Your task to perform on an android device: turn off notifications settings in the gmail app Image 0: 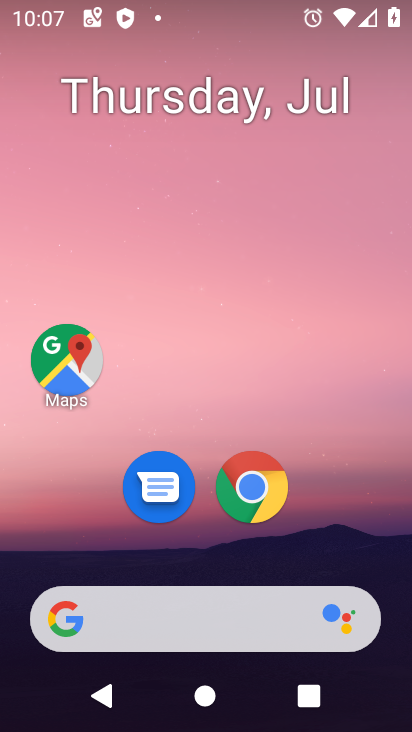
Step 0: drag from (302, 10) to (357, 18)
Your task to perform on an android device: turn off notifications settings in the gmail app Image 1: 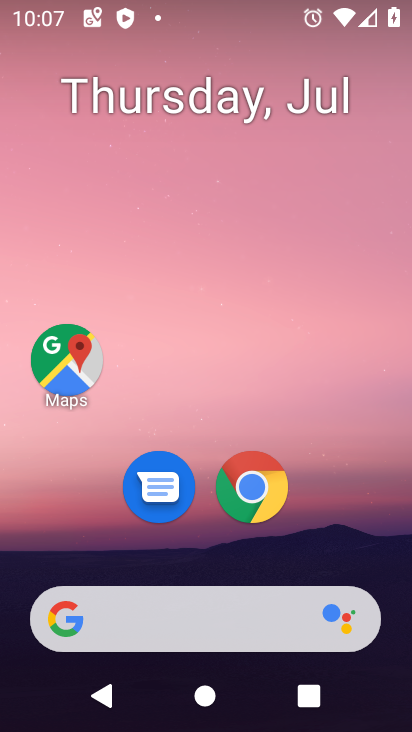
Step 1: drag from (212, 632) to (240, 156)
Your task to perform on an android device: turn off notifications settings in the gmail app Image 2: 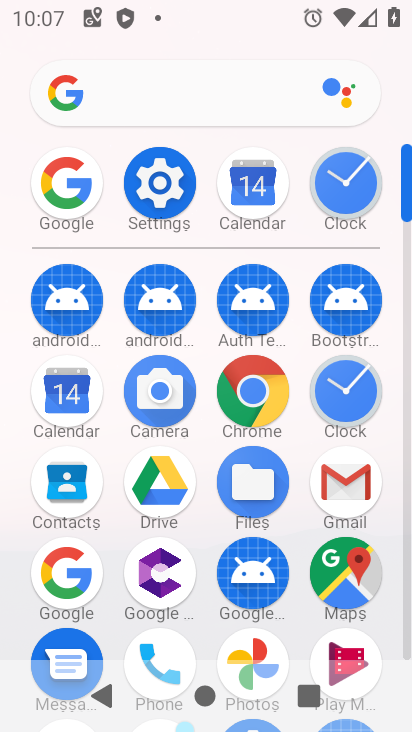
Step 2: click (351, 492)
Your task to perform on an android device: turn off notifications settings in the gmail app Image 3: 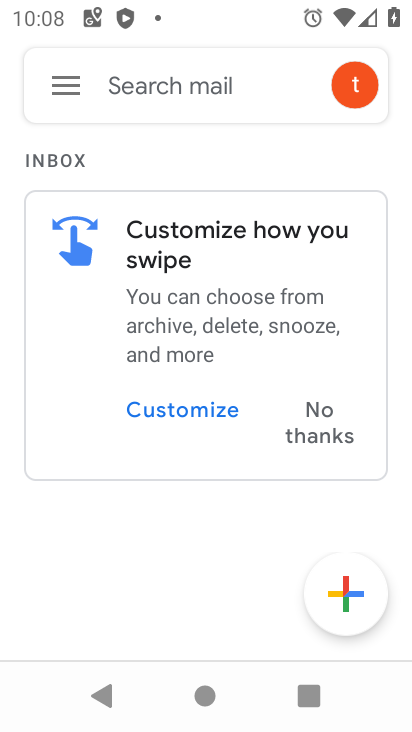
Step 3: click (48, 80)
Your task to perform on an android device: turn off notifications settings in the gmail app Image 4: 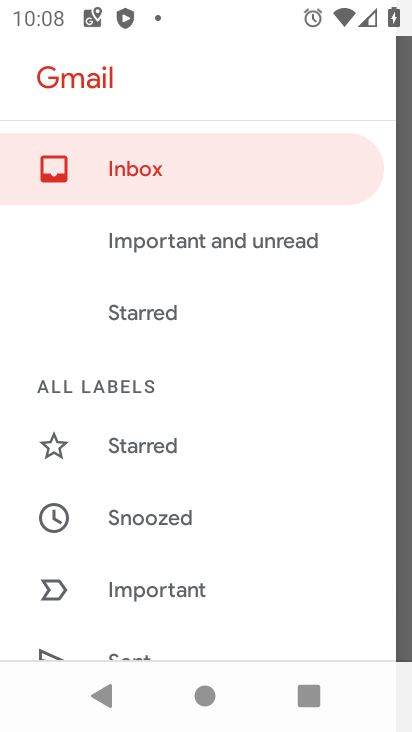
Step 4: drag from (250, 586) to (363, 177)
Your task to perform on an android device: turn off notifications settings in the gmail app Image 5: 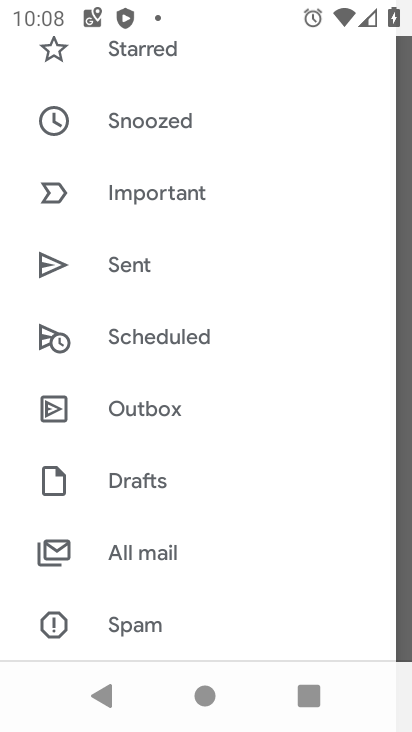
Step 5: drag from (209, 365) to (236, 224)
Your task to perform on an android device: turn off notifications settings in the gmail app Image 6: 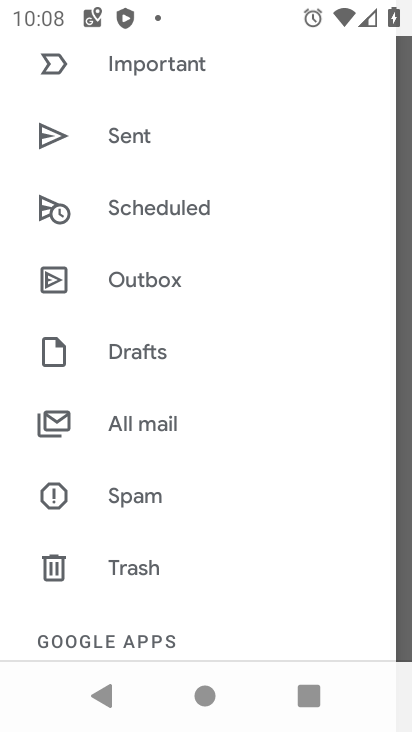
Step 6: drag from (175, 526) to (258, 224)
Your task to perform on an android device: turn off notifications settings in the gmail app Image 7: 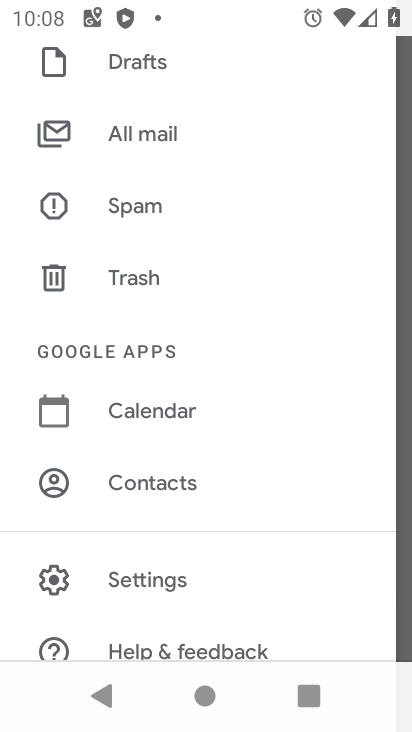
Step 7: click (125, 596)
Your task to perform on an android device: turn off notifications settings in the gmail app Image 8: 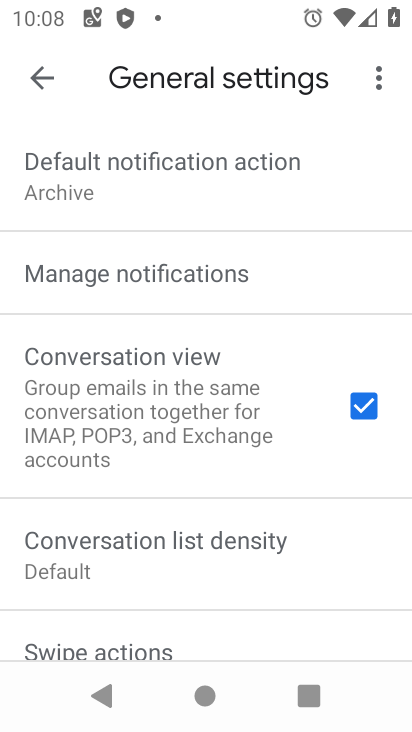
Step 8: click (179, 268)
Your task to perform on an android device: turn off notifications settings in the gmail app Image 9: 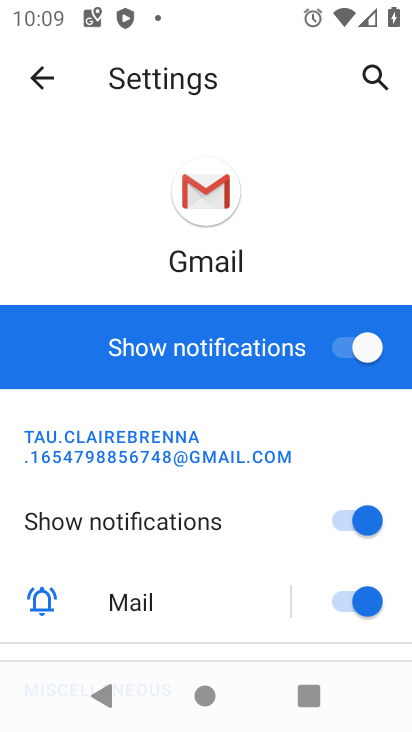
Step 9: click (204, 367)
Your task to perform on an android device: turn off notifications settings in the gmail app Image 10: 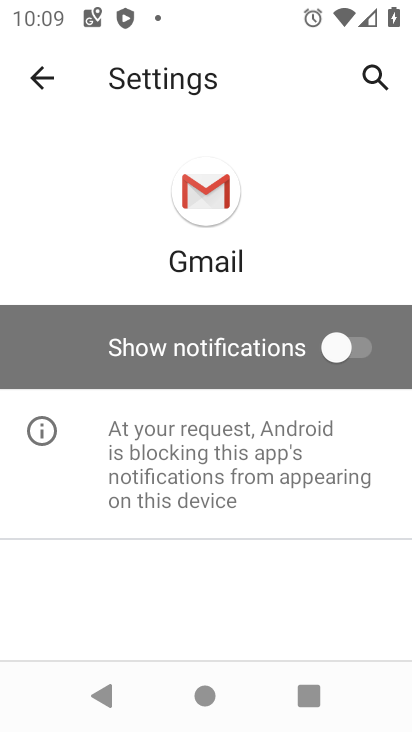
Step 10: task complete